Your task to perform on an android device: Open sound settings Image 0: 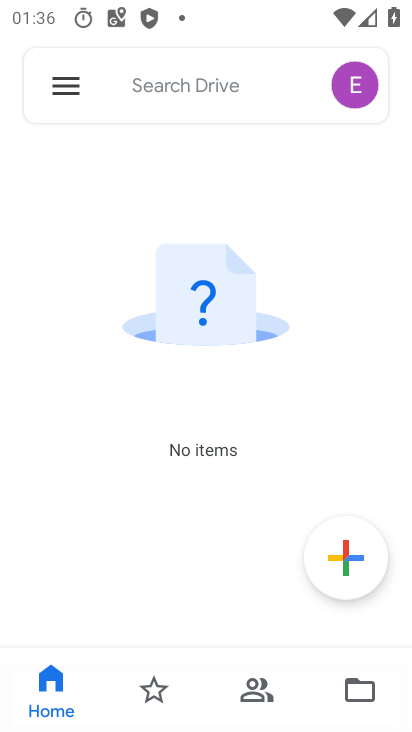
Step 0: press back button
Your task to perform on an android device: Open sound settings Image 1: 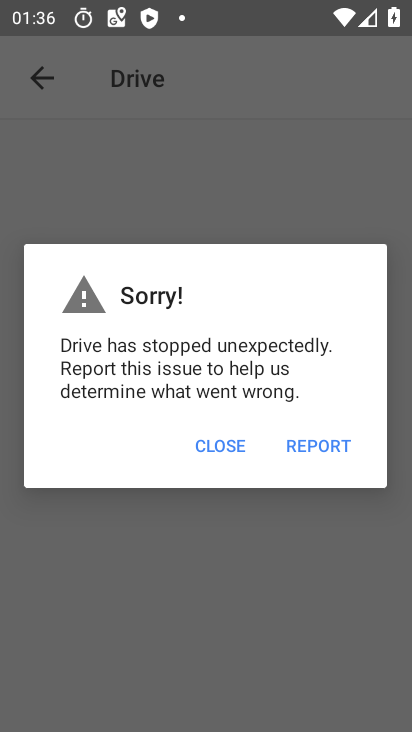
Step 1: click (197, 436)
Your task to perform on an android device: Open sound settings Image 2: 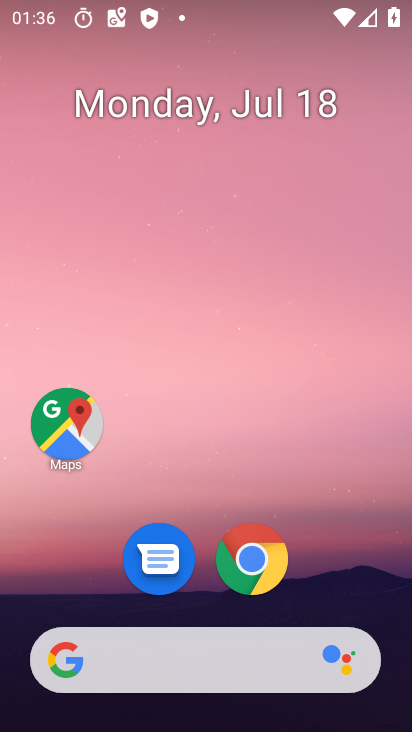
Step 2: drag from (67, 554) to (238, 7)
Your task to perform on an android device: Open sound settings Image 3: 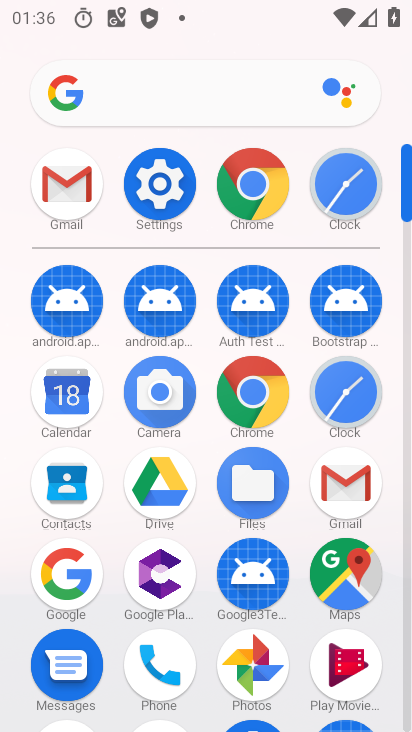
Step 3: click (172, 183)
Your task to perform on an android device: Open sound settings Image 4: 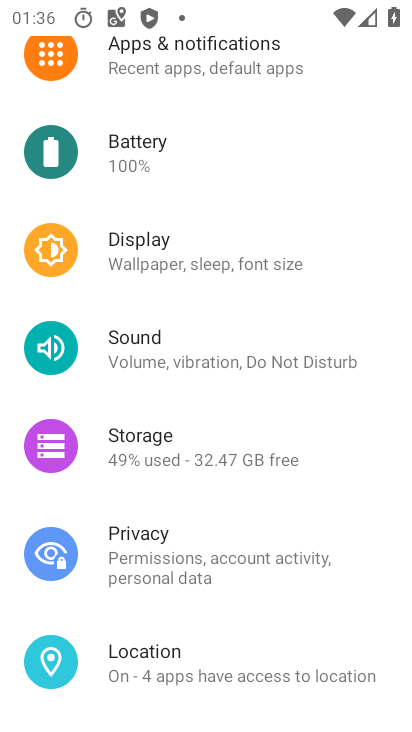
Step 4: click (129, 361)
Your task to perform on an android device: Open sound settings Image 5: 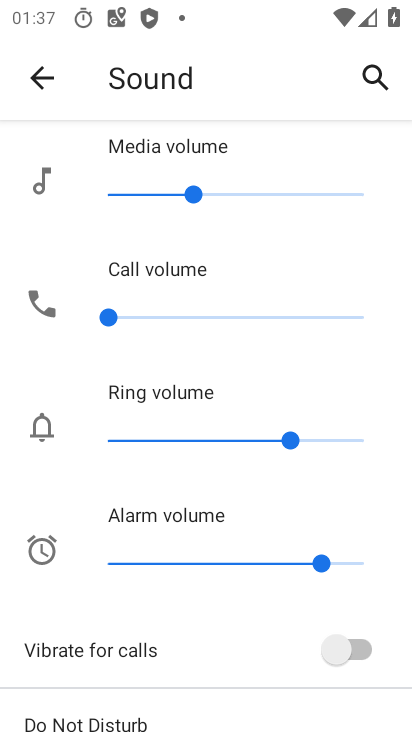
Step 5: task complete